Your task to perform on an android device: Go to Amazon Image 0: 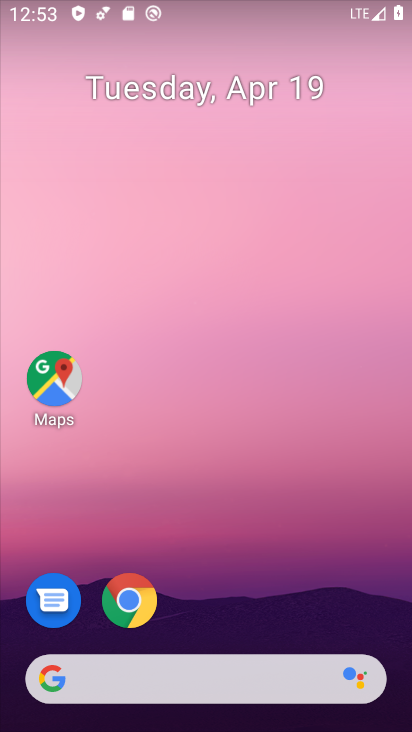
Step 0: drag from (235, 632) to (170, 8)
Your task to perform on an android device: Go to Amazon Image 1: 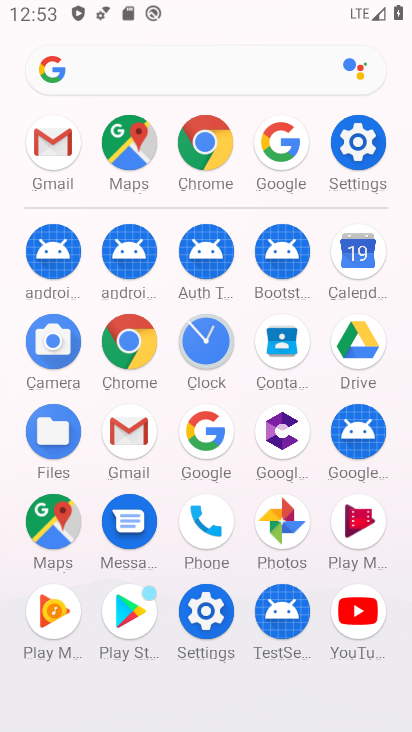
Step 1: click (208, 162)
Your task to perform on an android device: Go to Amazon Image 2: 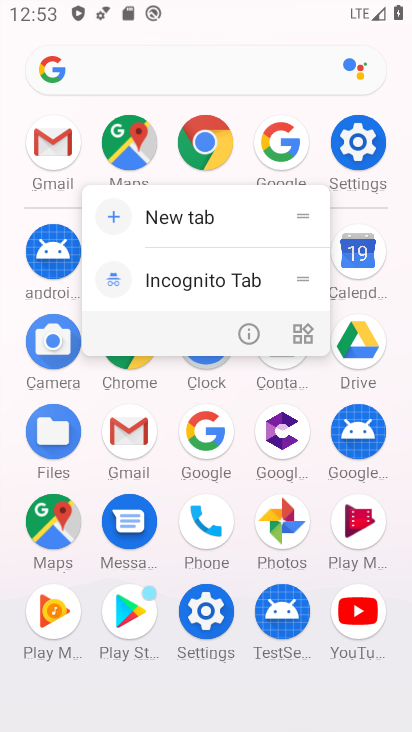
Step 2: click (208, 162)
Your task to perform on an android device: Go to Amazon Image 3: 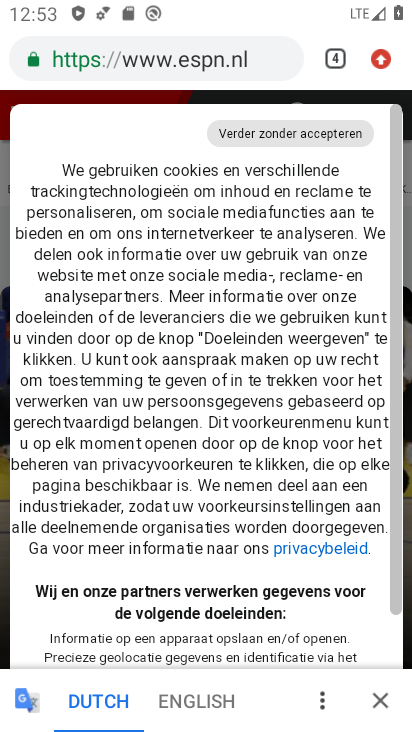
Step 3: click (333, 53)
Your task to perform on an android device: Go to Amazon Image 4: 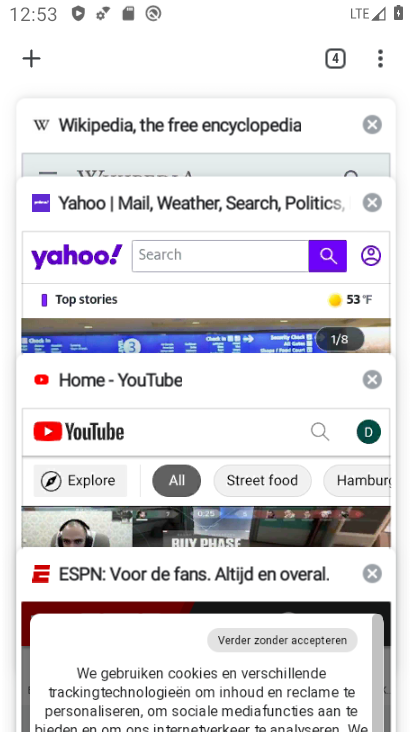
Step 4: click (31, 43)
Your task to perform on an android device: Go to Amazon Image 5: 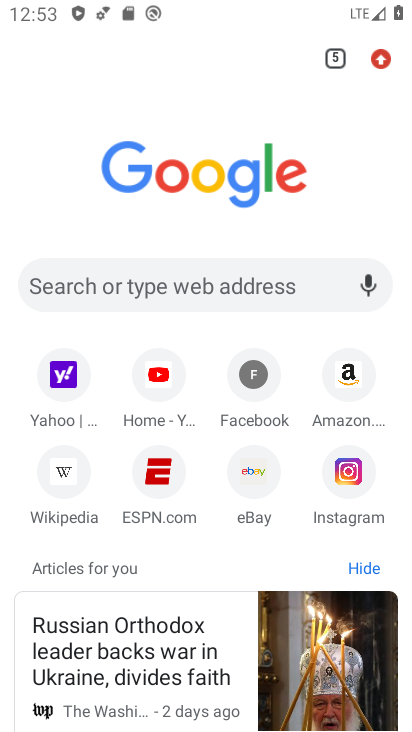
Step 5: click (332, 376)
Your task to perform on an android device: Go to Amazon Image 6: 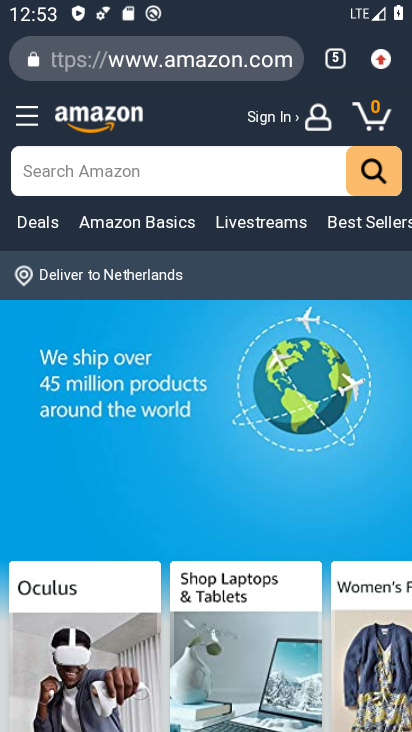
Step 6: task complete